Your task to perform on an android device: Open settings Image 0: 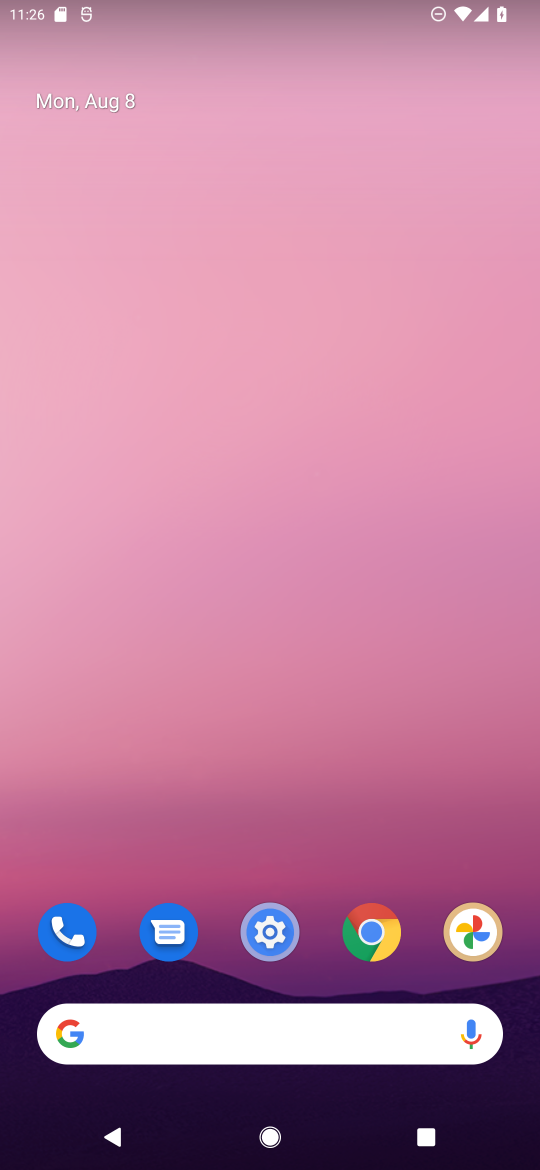
Step 0: click (264, 928)
Your task to perform on an android device: Open settings Image 1: 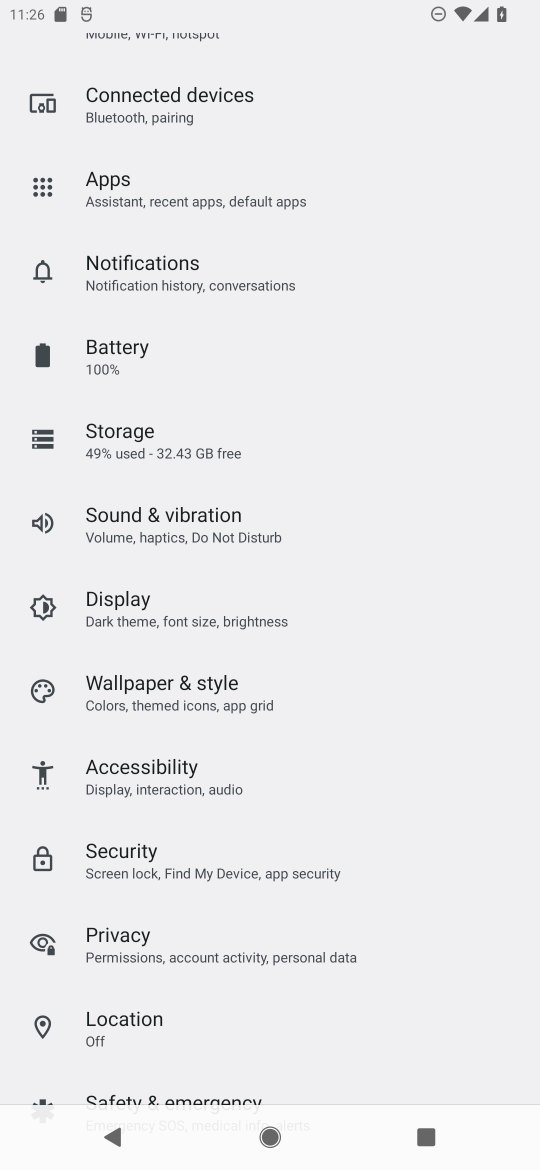
Step 1: task complete